Your task to perform on an android device: Is it going to rain today? Image 0: 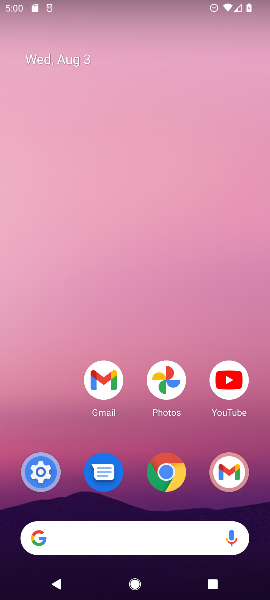
Step 0: drag from (234, 498) to (40, 10)
Your task to perform on an android device: Is it going to rain today? Image 1: 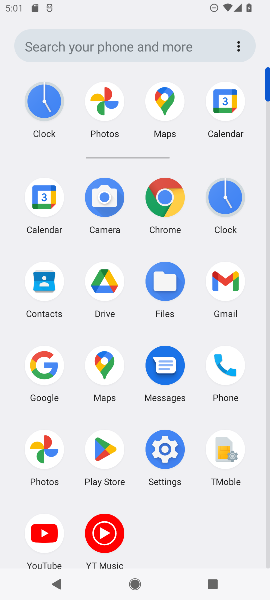
Step 1: click (48, 362)
Your task to perform on an android device: Is it going to rain today? Image 2: 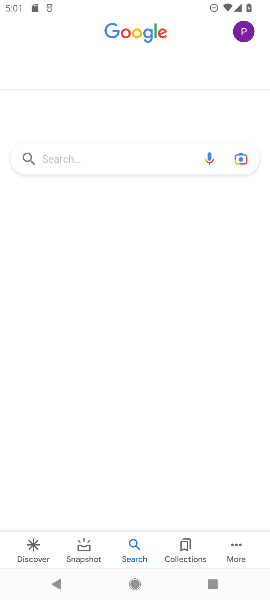
Step 2: click (89, 160)
Your task to perform on an android device: Is it going to rain today? Image 3: 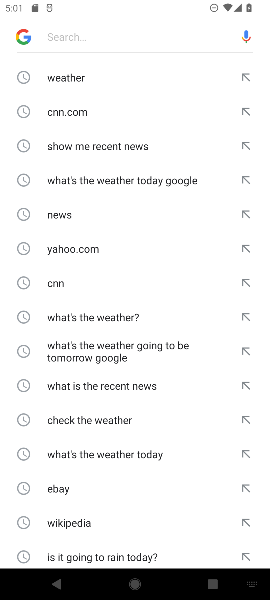
Step 3: type "Is it going to rain today?"
Your task to perform on an android device: Is it going to rain today? Image 4: 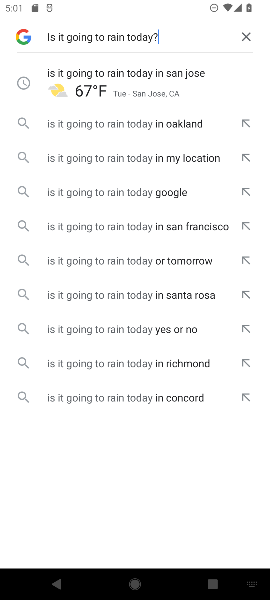
Step 4: click (128, 189)
Your task to perform on an android device: Is it going to rain today? Image 5: 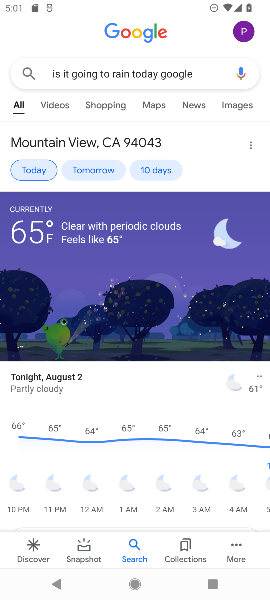
Step 5: task complete